Your task to perform on an android device: set the timer Image 0: 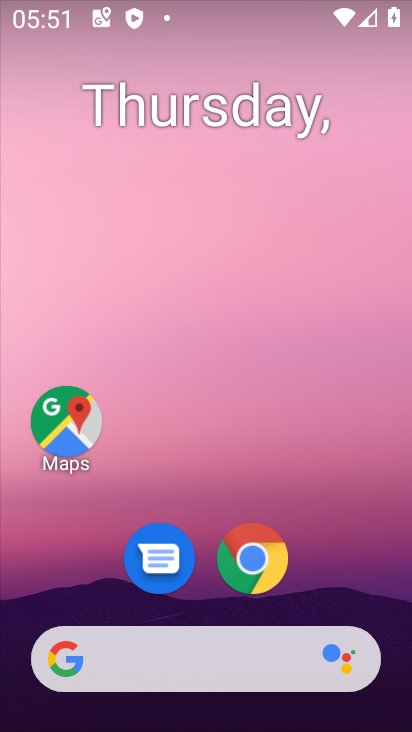
Step 0: click (310, 260)
Your task to perform on an android device: set the timer Image 1: 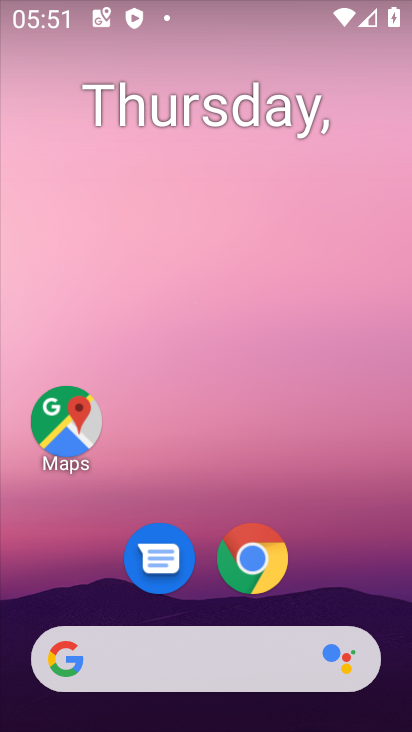
Step 1: drag from (306, 569) to (304, 207)
Your task to perform on an android device: set the timer Image 2: 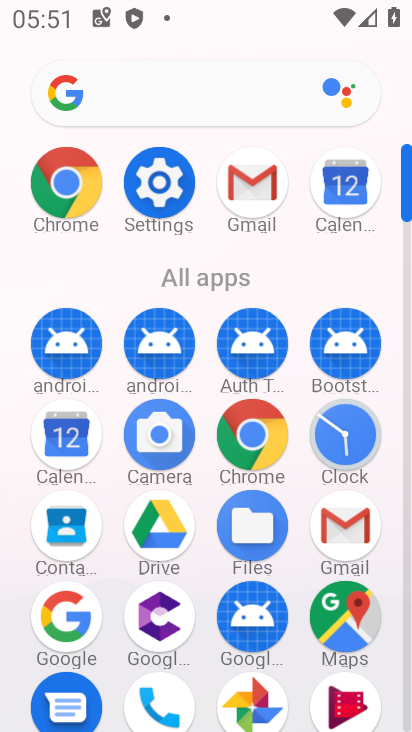
Step 2: click (352, 462)
Your task to perform on an android device: set the timer Image 3: 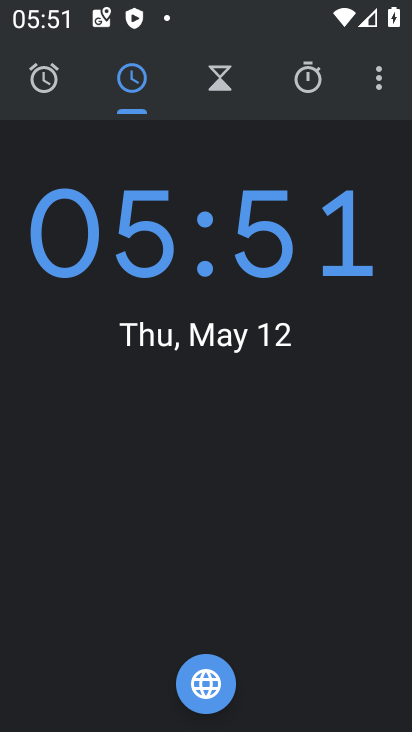
Step 3: click (380, 88)
Your task to perform on an android device: set the timer Image 4: 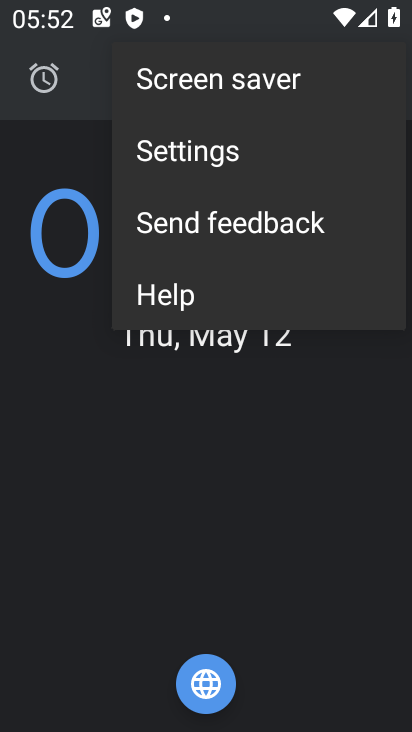
Step 4: click (63, 369)
Your task to perform on an android device: set the timer Image 5: 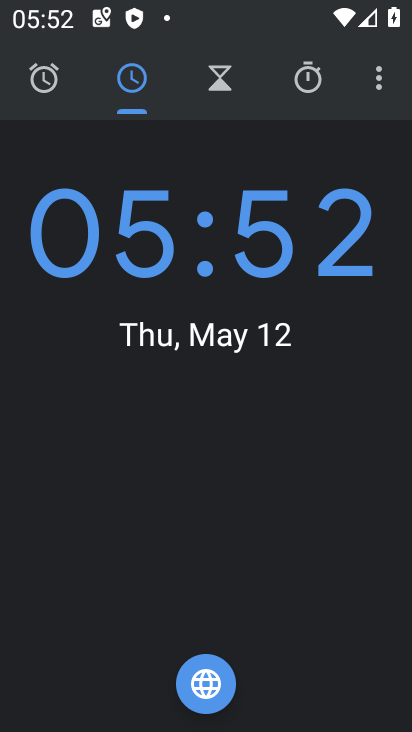
Step 5: click (216, 78)
Your task to perform on an android device: set the timer Image 6: 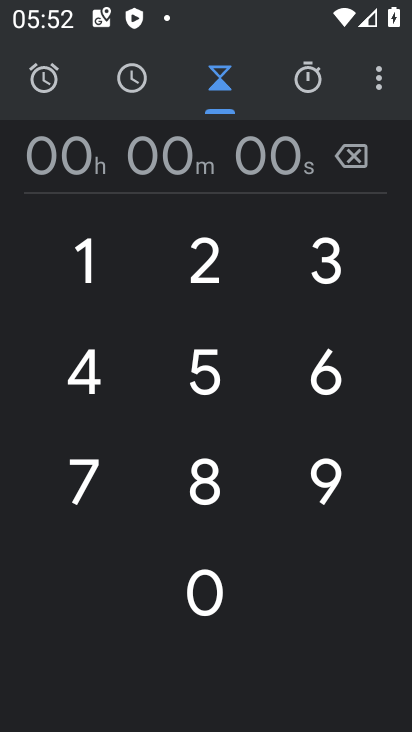
Step 6: click (89, 286)
Your task to perform on an android device: set the timer Image 7: 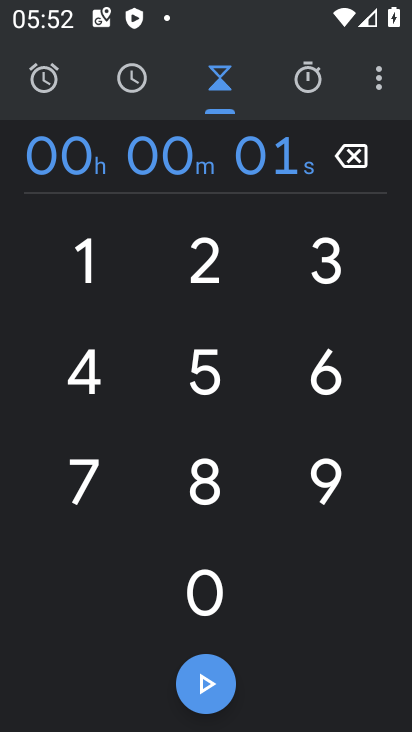
Step 7: click (194, 611)
Your task to perform on an android device: set the timer Image 8: 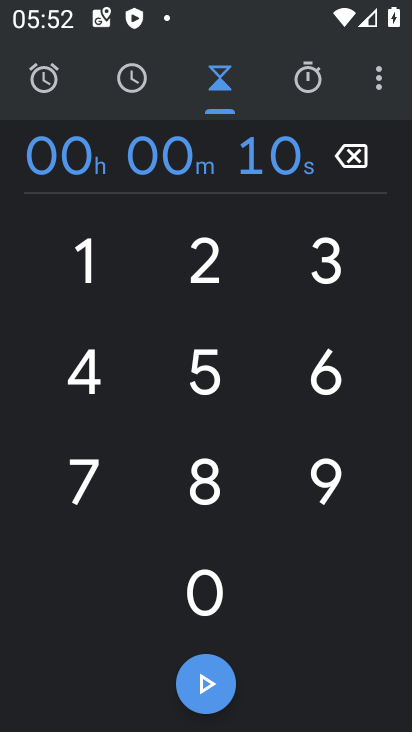
Step 8: click (93, 279)
Your task to perform on an android device: set the timer Image 9: 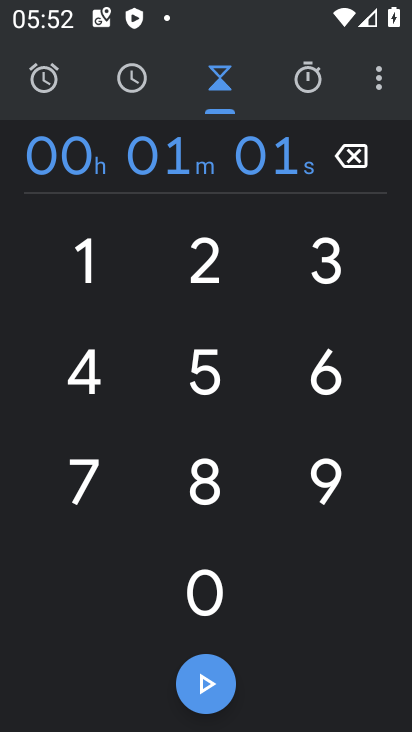
Step 9: click (216, 610)
Your task to perform on an android device: set the timer Image 10: 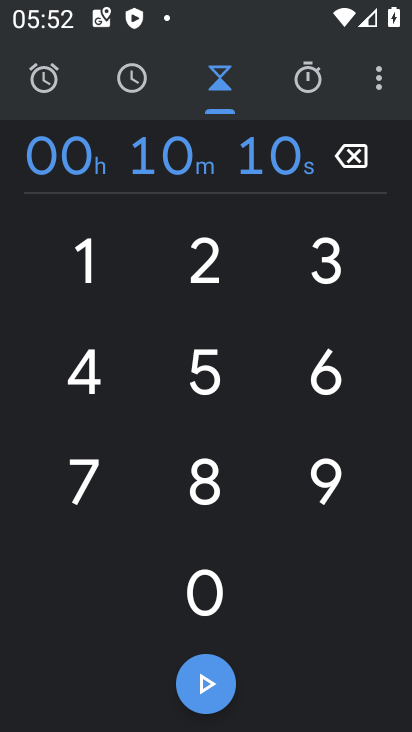
Step 10: click (212, 692)
Your task to perform on an android device: set the timer Image 11: 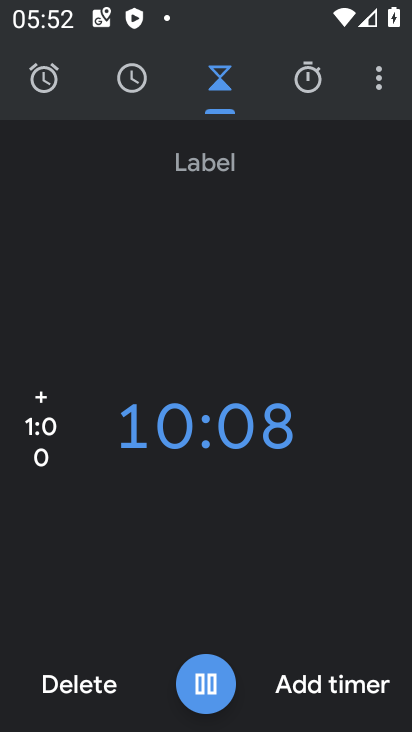
Step 11: click (304, 685)
Your task to perform on an android device: set the timer Image 12: 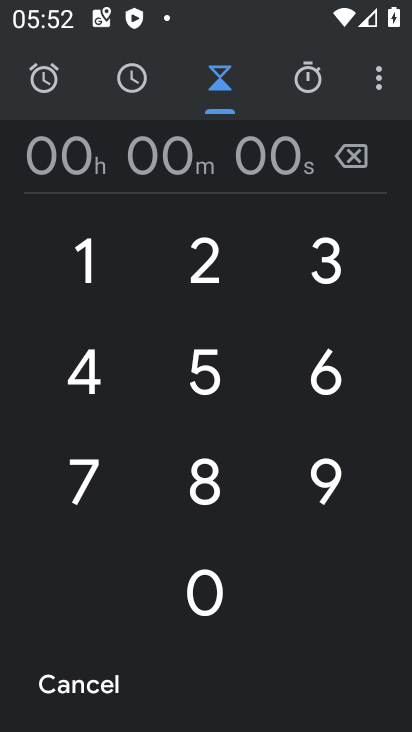
Step 12: task complete